Your task to perform on an android device: Show me recent news Image 0: 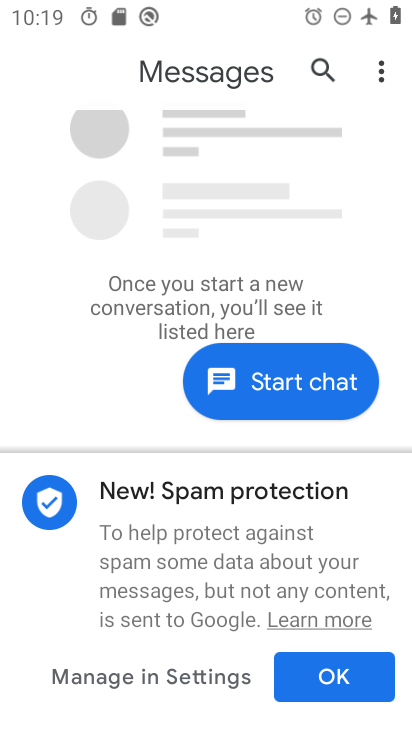
Step 0: press home button
Your task to perform on an android device: Show me recent news Image 1: 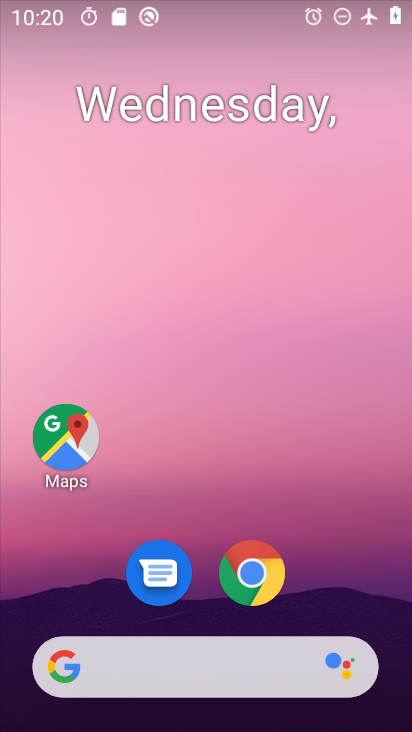
Step 1: drag from (327, 657) to (368, 209)
Your task to perform on an android device: Show me recent news Image 2: 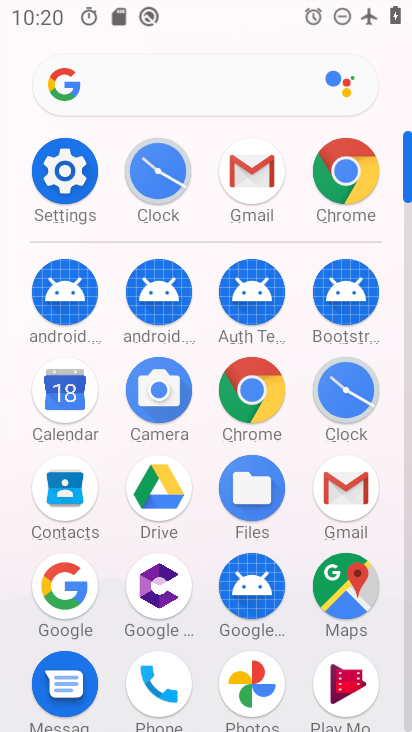
Step 2: click (62, 599)
Your task to perform on an android device: Show me recent news Image 3: 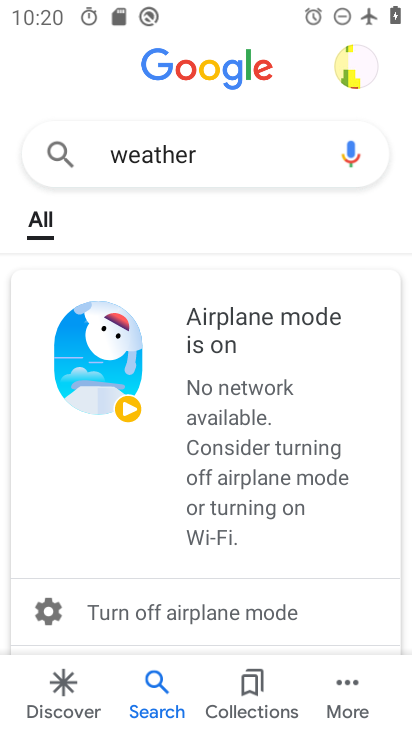
Step 3: click (287, 133)
Your task to perform on an android device: Show me recent news Image 4: 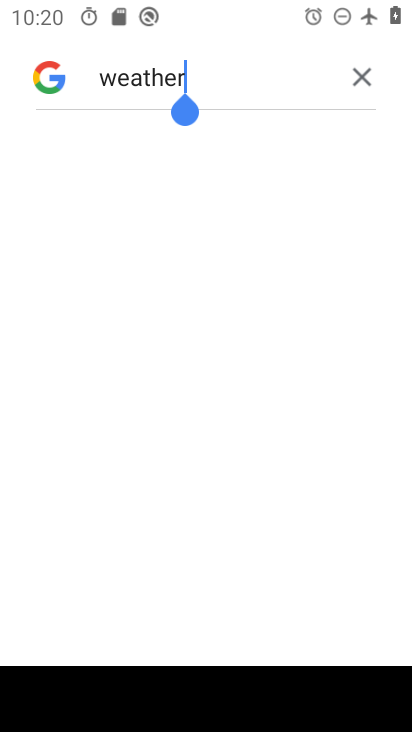
Step 4: click (374, 72)
Your task to perform on an android device: Show me recent news Image 5: 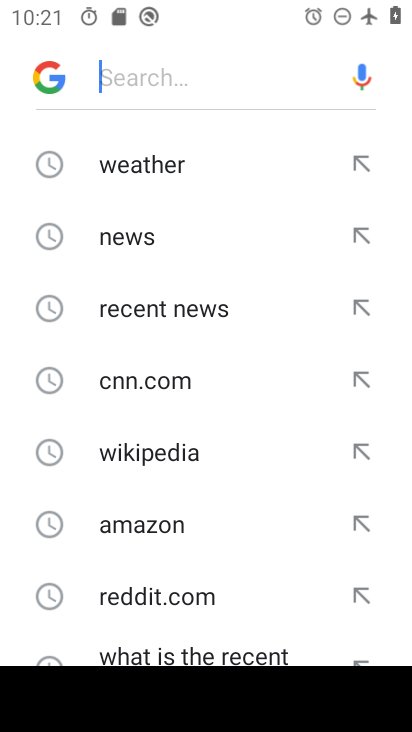
Step 5: click (341, 242)
Your task to perform on an android device: Show me recent news Image 6: 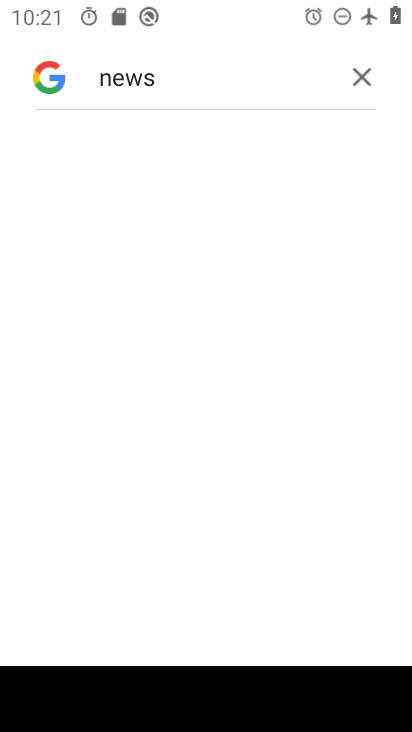
Step 6: task complete